Your task to perform on an android device: Go to CNN.com Image 0: 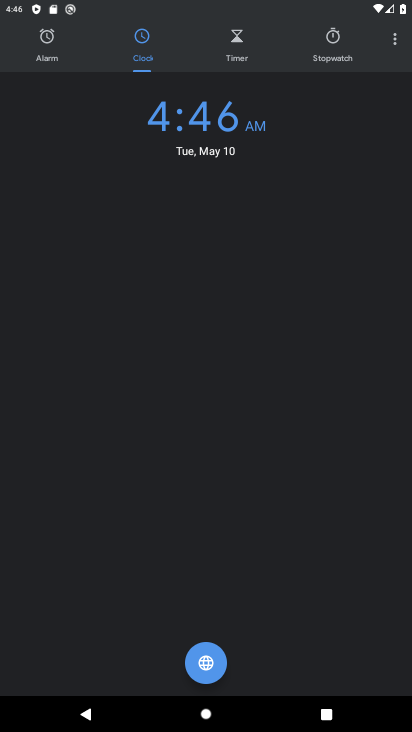
Step 0: press home button
Your task to perform on an android device: Go to CNN.com Image 1: 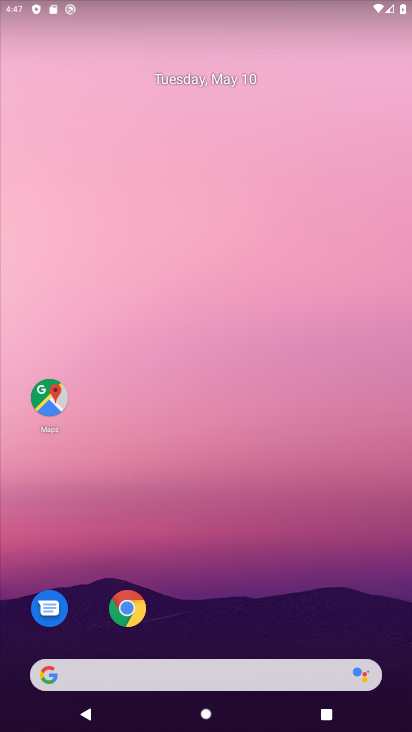
Step 1: click (123, 609)
Your task to perform on an android device: Go to CNN.com Image 2: 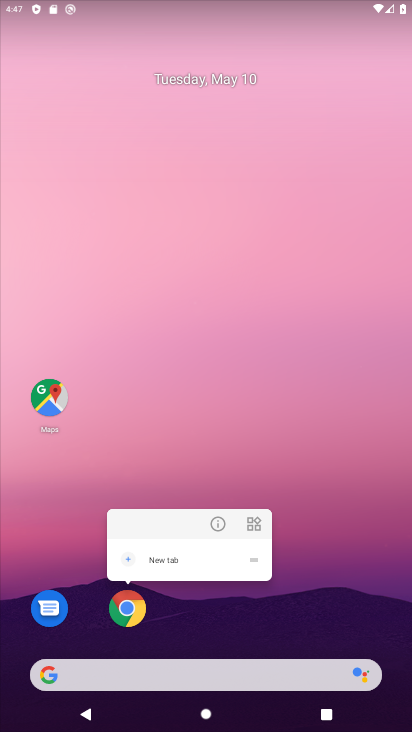
Step 2: click (119, 619)
Your task to perform on an android device: Go to CNN.com Image 3: 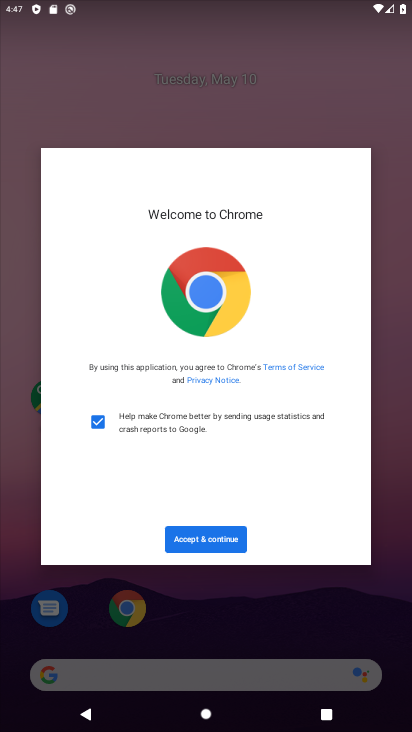
Step 3: click (231, 544)
Your task to perform on an android device: Go to CNN.com Image 4: 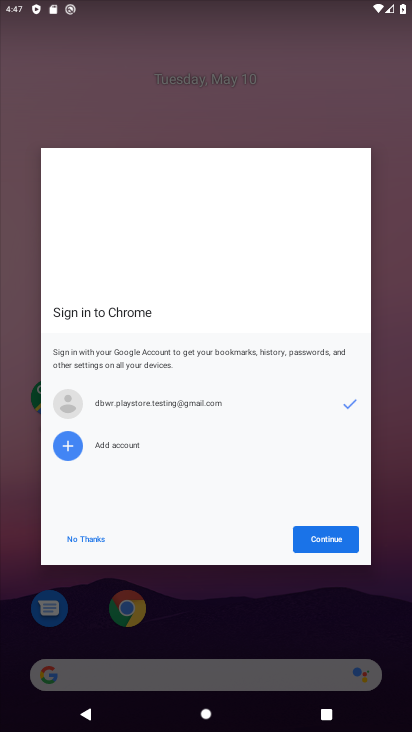
Step 4: click (314, 542)
Your task to perform on an android device: Go to CNN.com Image 5: 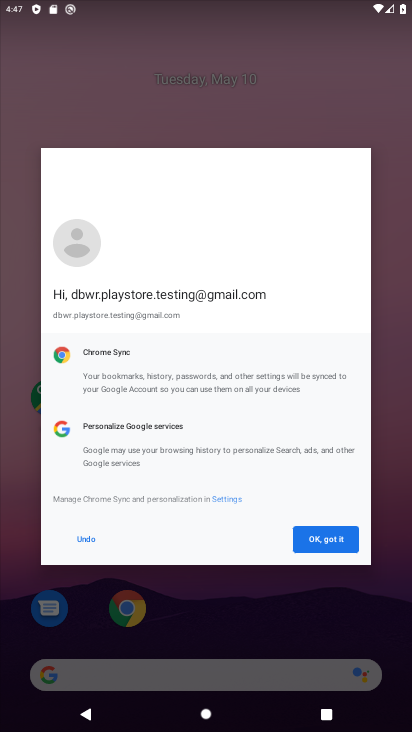
Step 5: click (313, 545)
Your task to perform on an android device: Go to CNN.com Image 6: 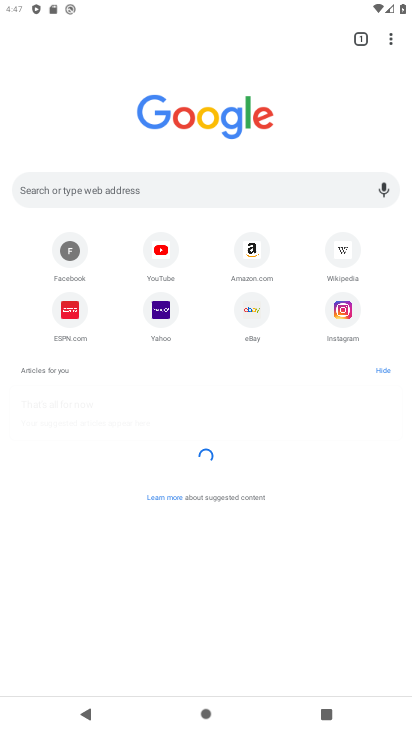
Step 6: click (234, 187)
Your task to perform on an android device: Go to CNN.com Image 7: 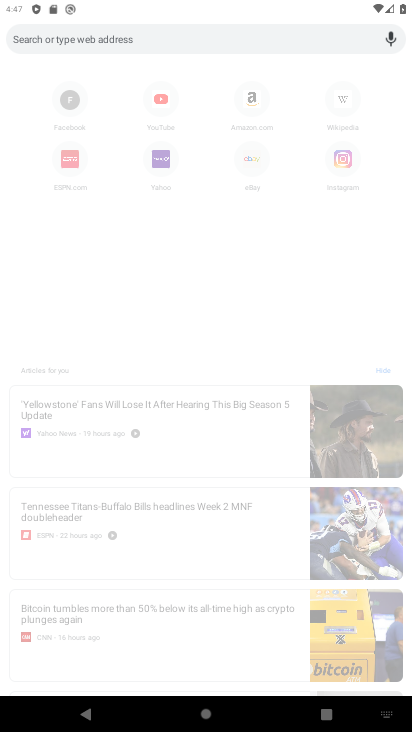
Step 7: type "CNN.com"
Your task to perform on an android device: Go to CNN.com Image 8: 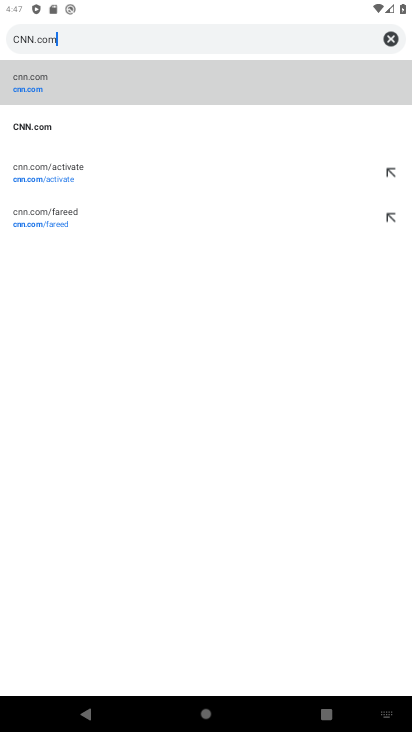
Step 8: click (49, 85)
Your task to perform on an android device: Go to CNN.com Image 9: 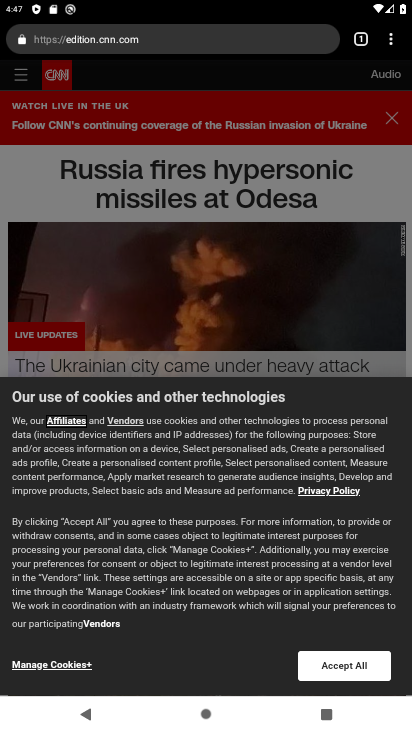
Step 9: task complete